Your task to perform on an android device: uninstall "PUBG MOBILE" Image 0: 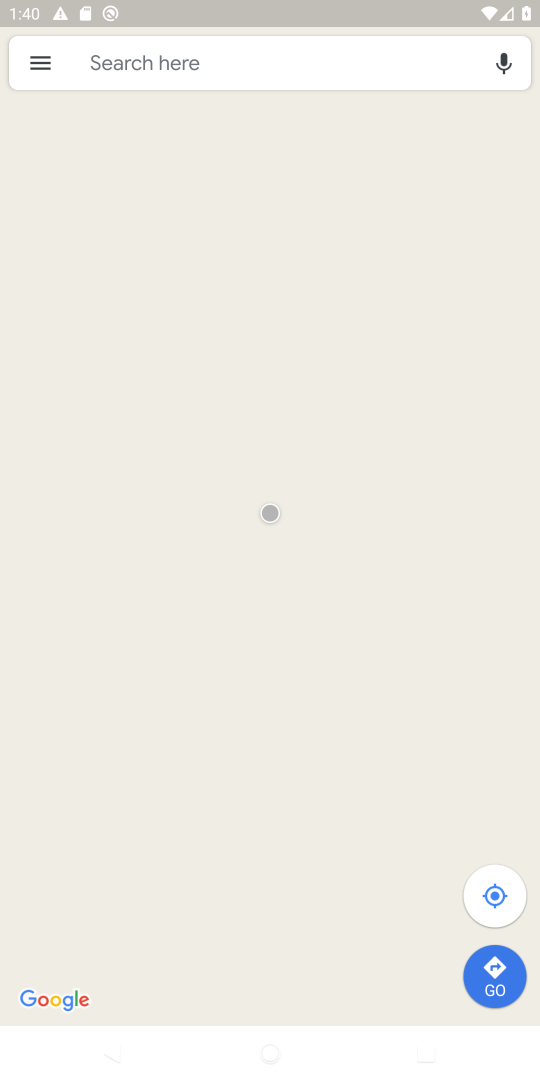
Step 0: press home button
Your task to perform on an android device: uninstall "PUBG MOBILE" Image 1: 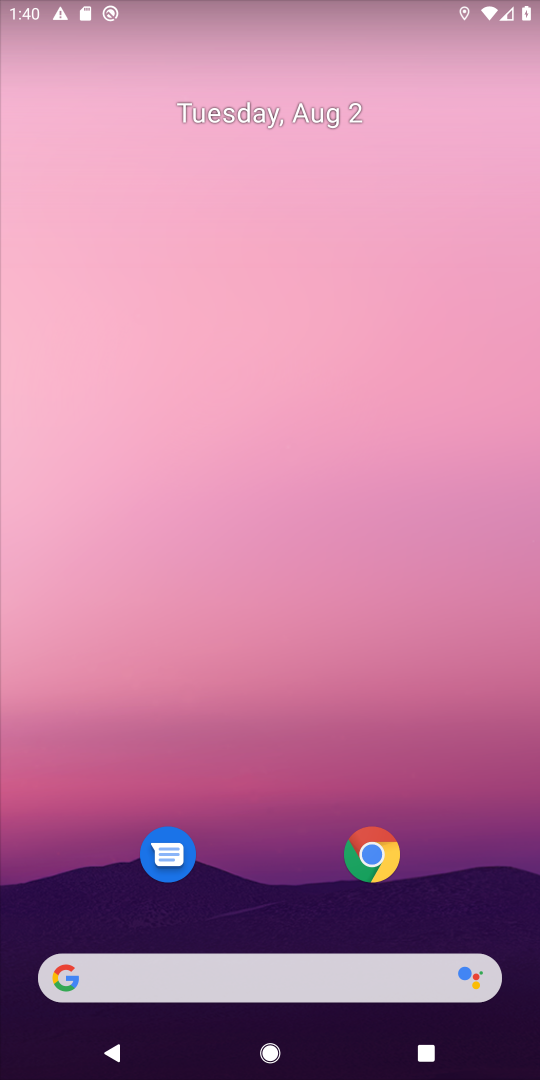
Step 1: drag from (294, 1004) to (281, 172)
Your task to perform on an android device: uninstall "PUBG MOBILE" Image 2: 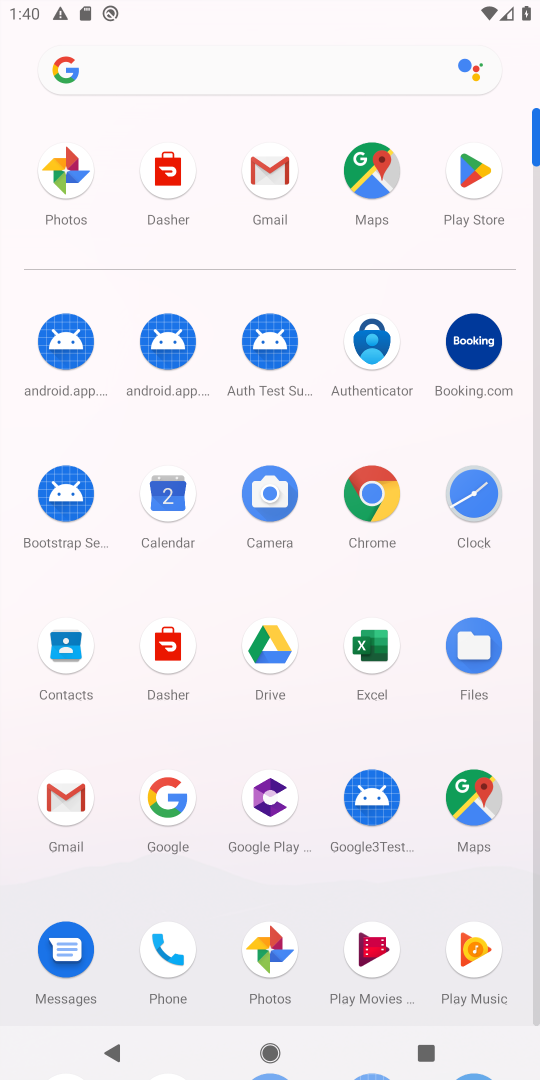
Step 2: click (473, 184)
Your task to perform on an android device: uninstall "PUBG MOBILE" Image 3: 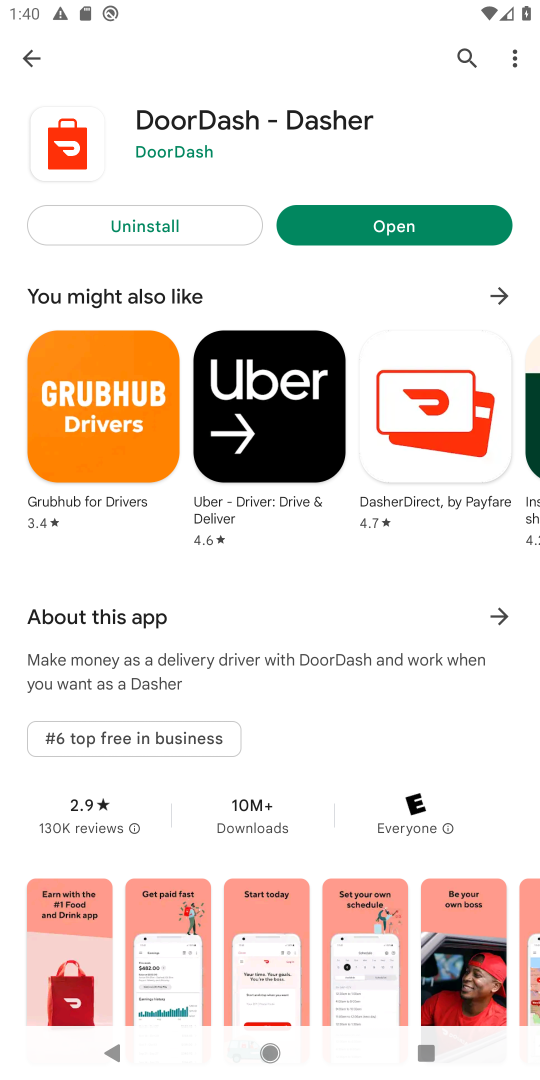
Step 3: click (459, 55)
Your task to perform on an android device: uninstall "PUBG MOBILE" Image 4: 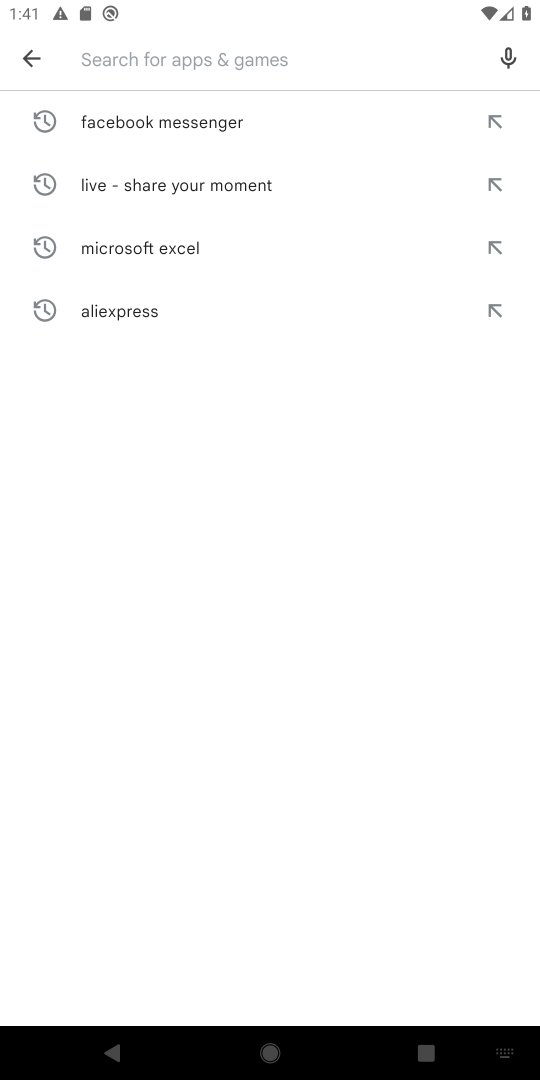
Step 4: type "PUBG MOBILE"
Your task to perform on an android device: uninstall "PUBG MOBILE" Image 5: 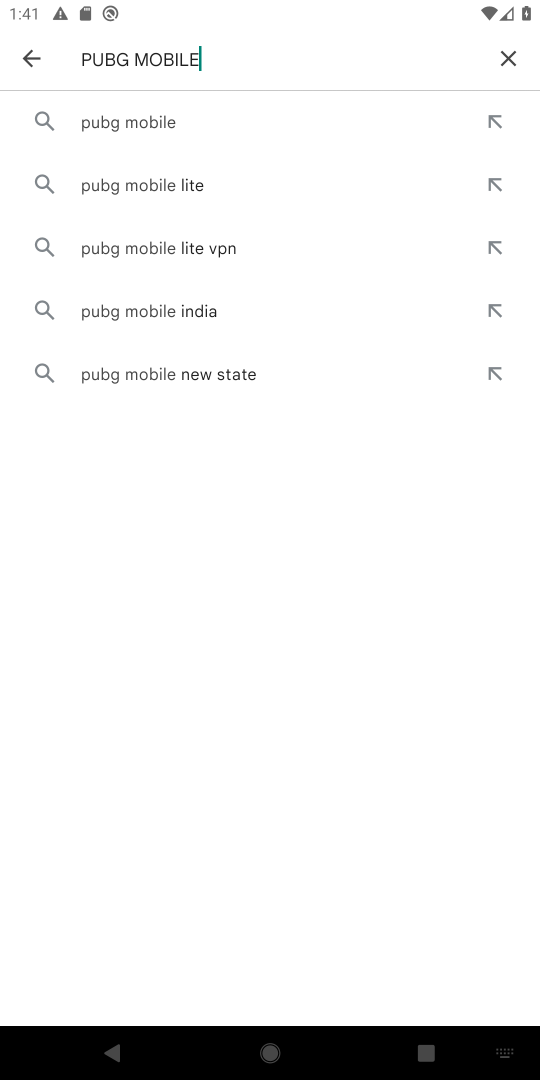
Step 5: click (144, 121)
Your task to perform on an android device: uninstall "PUBG MOBILE" Image 6: 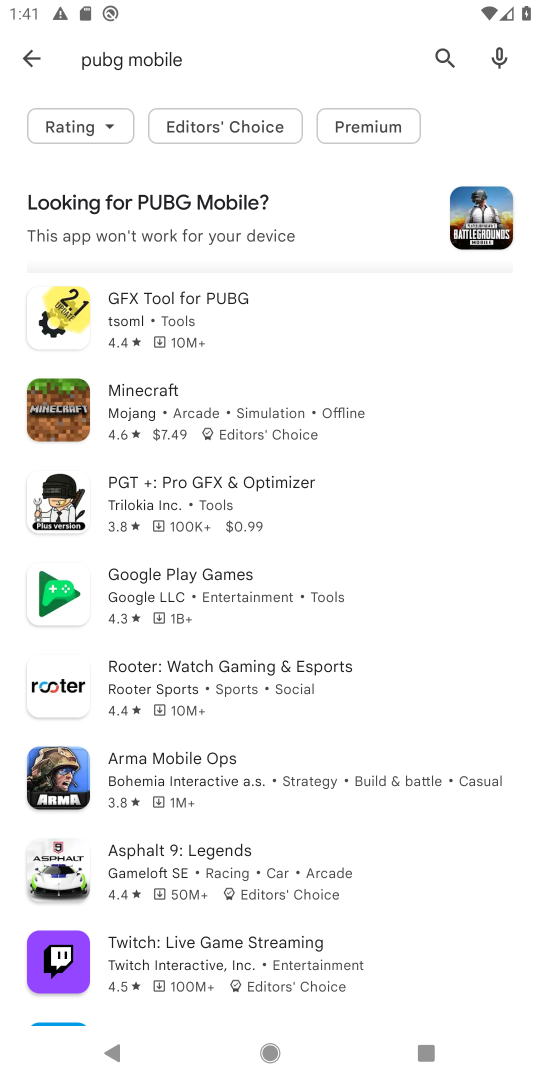
Step 6: task complete